Your task to perform on an android device: allow notifications from all sites in the chrome app Image 0: 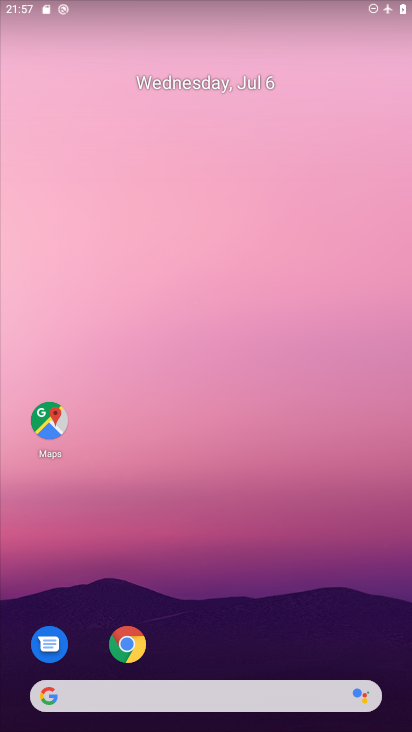
Step 0: drag from (204, 638) to (196, 180)
Your task to perform on an android device: allow notifications from all sites in the chrome app Image 1: 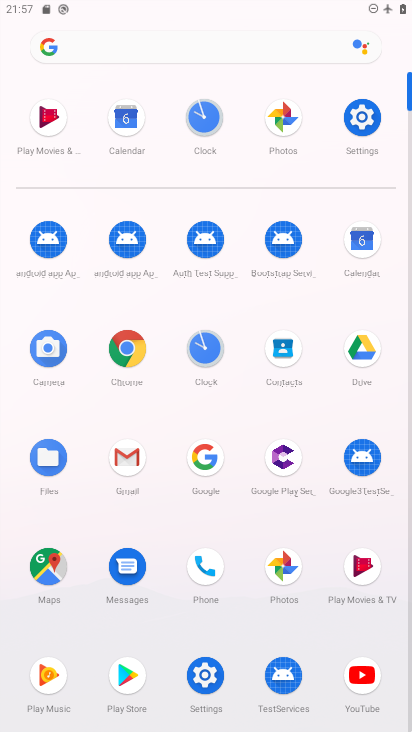
Step 1: click (137, 367)
Your task to perform on an android device: allow notifications from all sites in the chrome app Image 2: 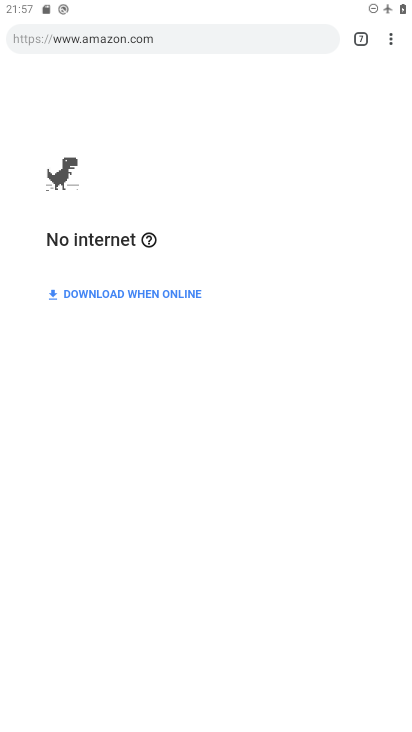
Step 2: click (395, 38)
Your task to perform on an android device: allow notifications from all sites in the chrome app Image 3: 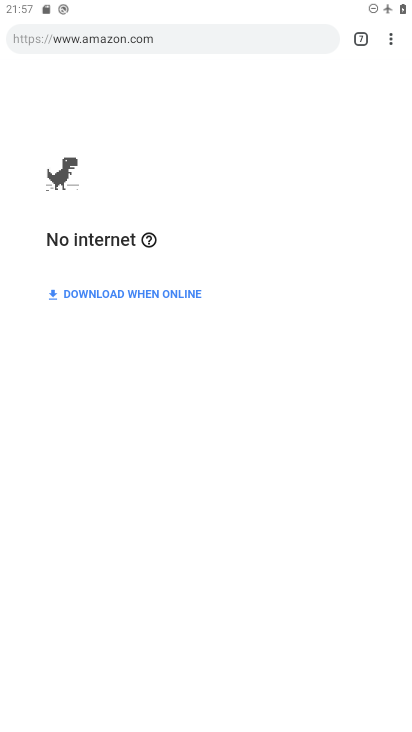
Step 3: click (394, 38)
Your task to perform on an android device: allow notifications from all sites in the chrome app Image 4: 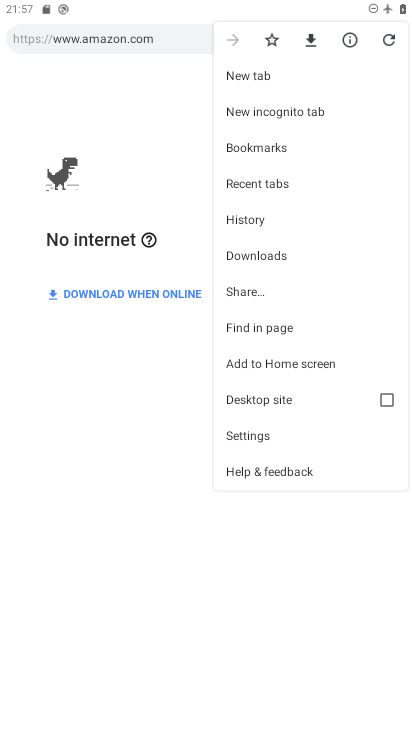
Step 4: click (275, 428)
Your task to perform on an android device: allow notifications from all sites in the chrome app Image 5: 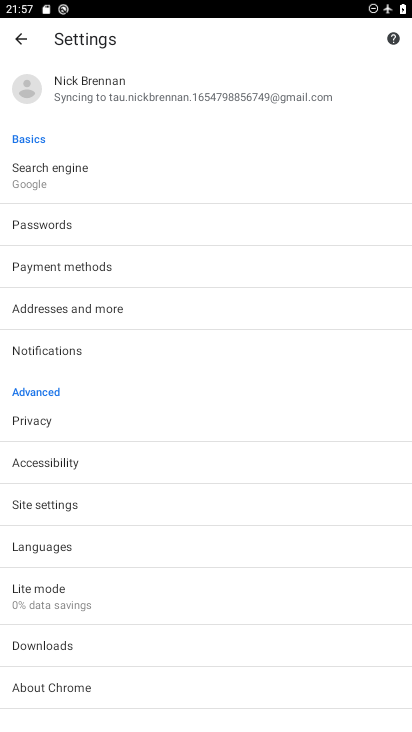
Step 5: drag from (152, 572) to (177, 242)
Your task to perform on an android device: allow notifications from all sites in the chrome app Image 6: 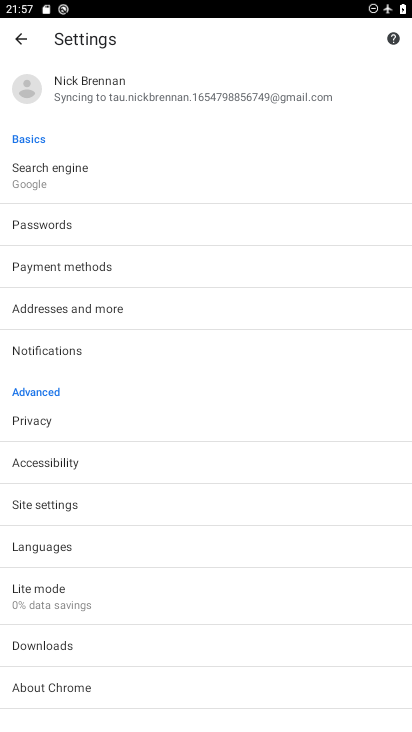
Step 6: click (87, 497)
Your task to perform on an android device: allow notifications from all sites in the chrome app Image 7: 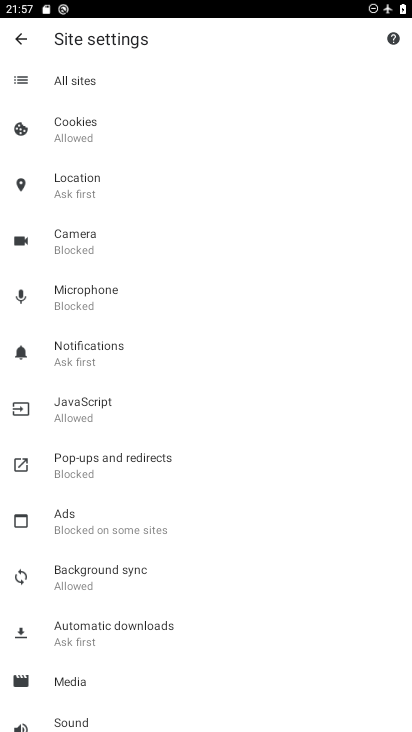
Step 7: click (140, 351)
Your task to perform on an android device: allow notifications from all sites in the chrome app Image 8: 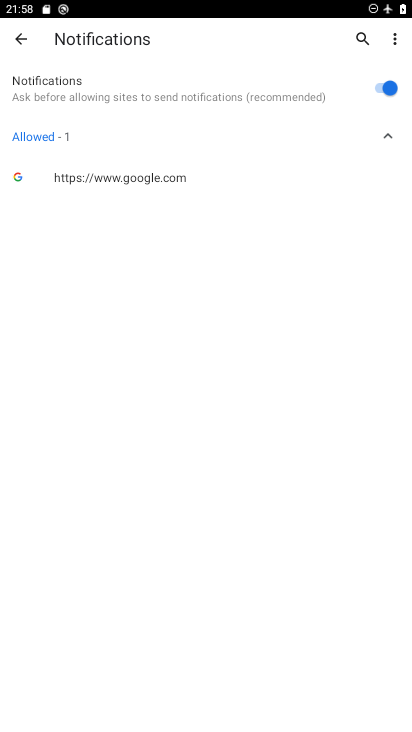
Step 8: task complete